Your task to perform on an android device: all mails in gmail Image 0: 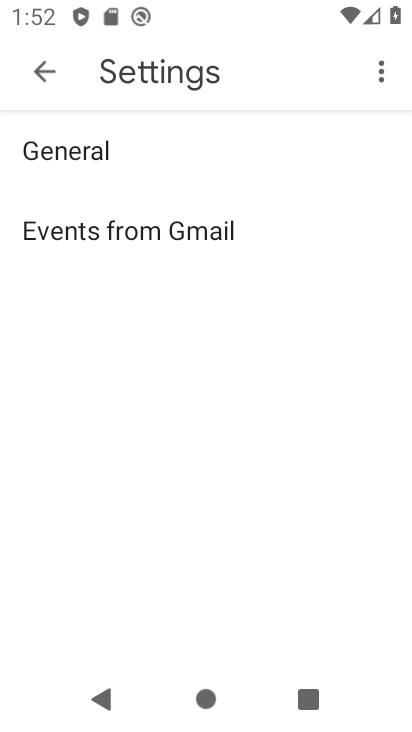
Step 0: press back button
Your task to perform on an android device: all mails in gmail Image 1: 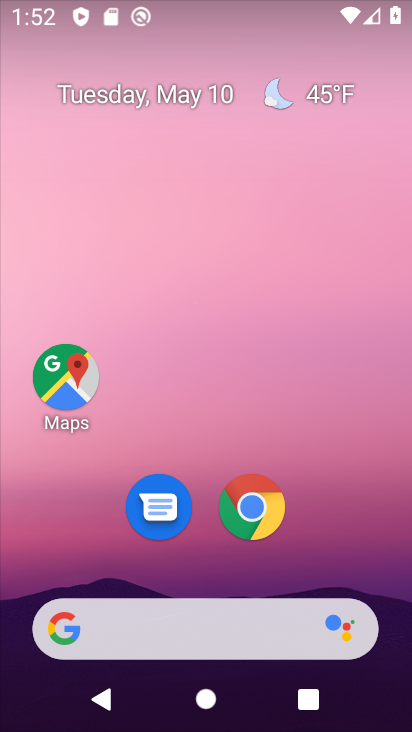
Step 1: drag from (116, 596) to (228, 27)
Your task to perform on an android device: all mails in gmail Image 2: 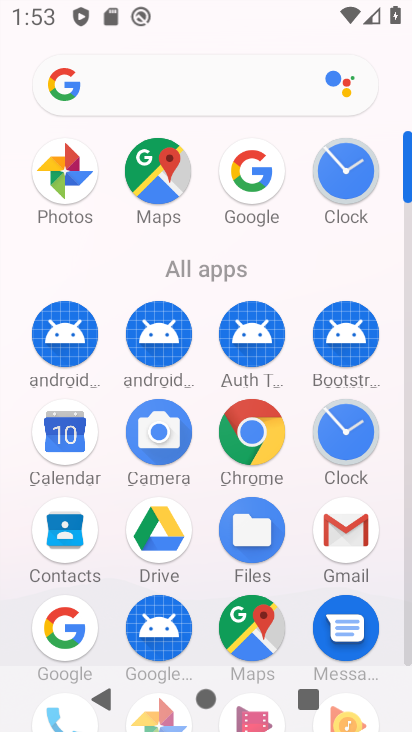
Step 2: click (334, 521)
Your task to perform on an android device: all mails in gmail Image 3: 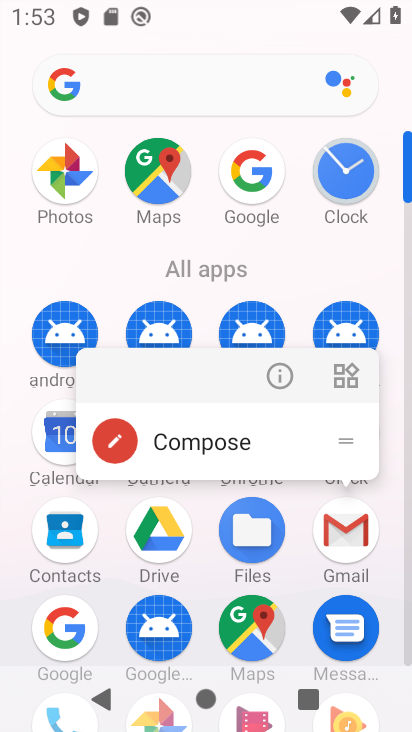
Step 3: click (330, 532)
Your task to perform on an android device: all mails in gmail Image 4: 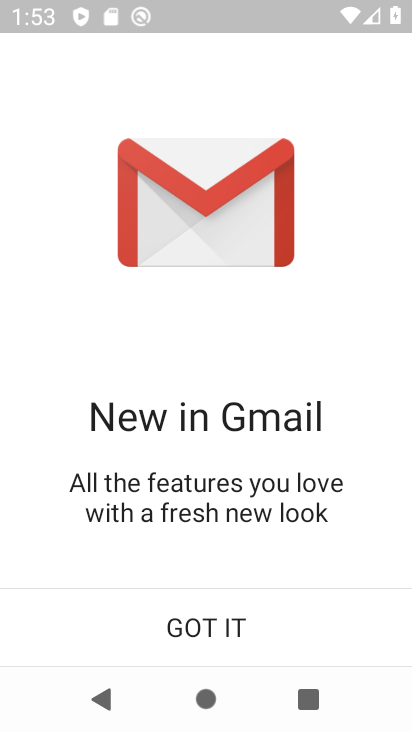
Step 4: click (245, 636)
Your task to perform on an android device: all mails in gmail Image 5: 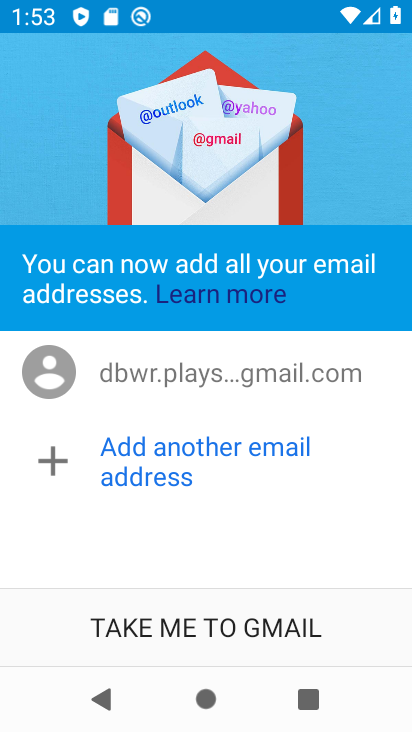
Step 5: click (245, 636)
Your task to perform on an android device: all mails in gmail Image 6: 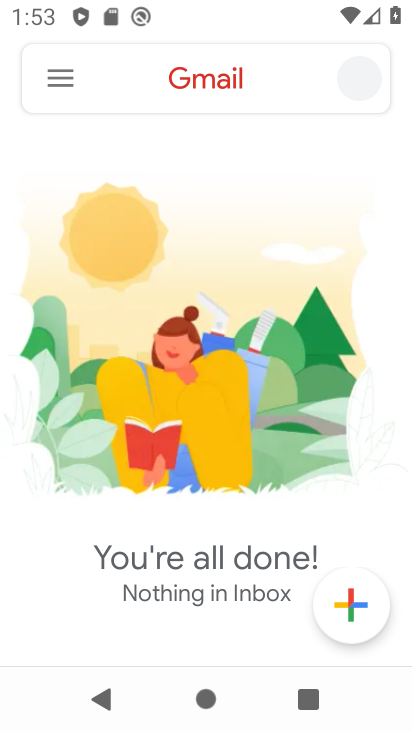
Step 6: click (59, 78)
Your task to perform on an android device: all mails in gmail Image 7: 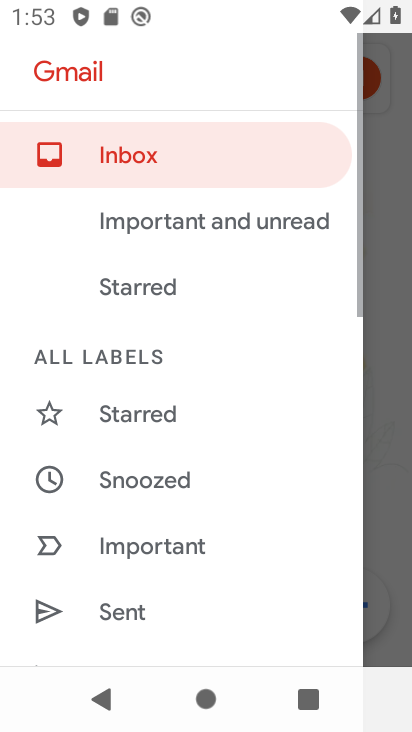
Step 7: drag from (126, 619) to (238, 289)
Your task to perform on an android device: all mails in gmail Image 8: 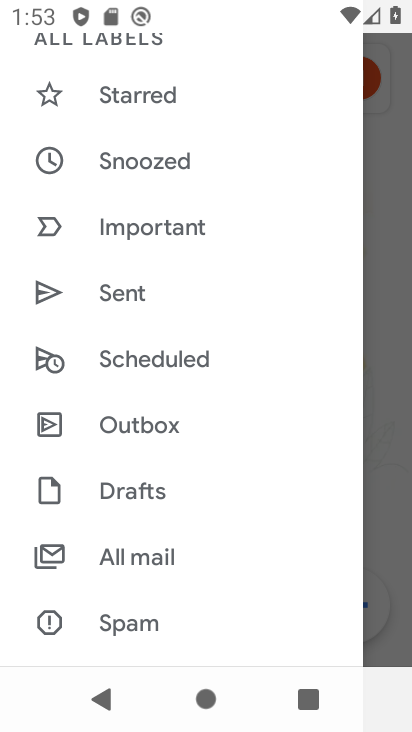
Step 8: click (159, 557)
Your task to perform on an android device: all mails in gmail Image 9: 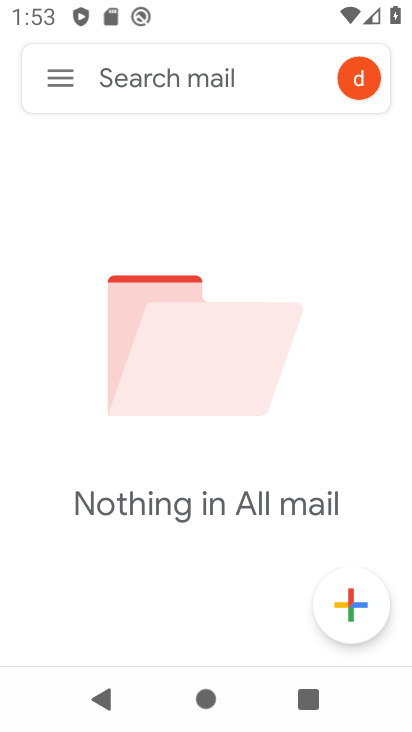
Step 9: task complete